Your task to perform on an android device: Go to Reddit.com Image 0: 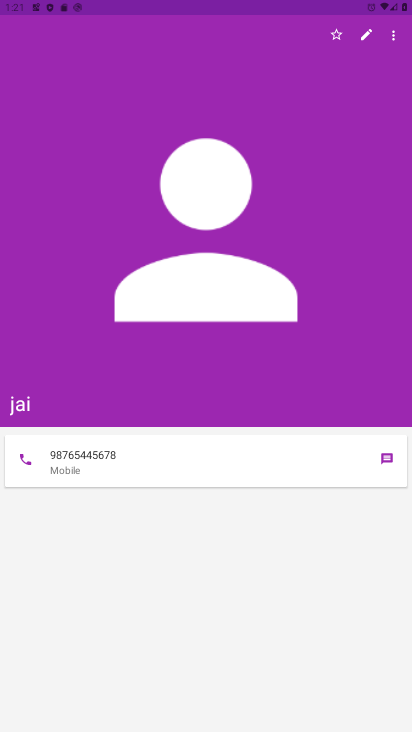
Step 0: press home button
Your task to perform on an android device: Go to Reddit.com Image 1: 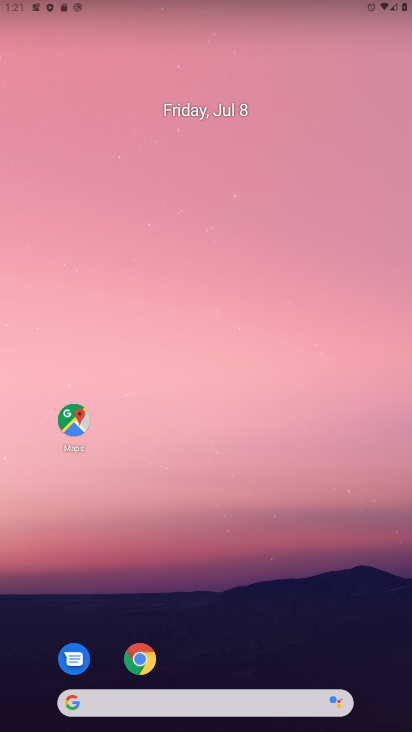
Step 1: click (238, 693)
Your task to perform on an android device: Go to Reddit.com Image 2: 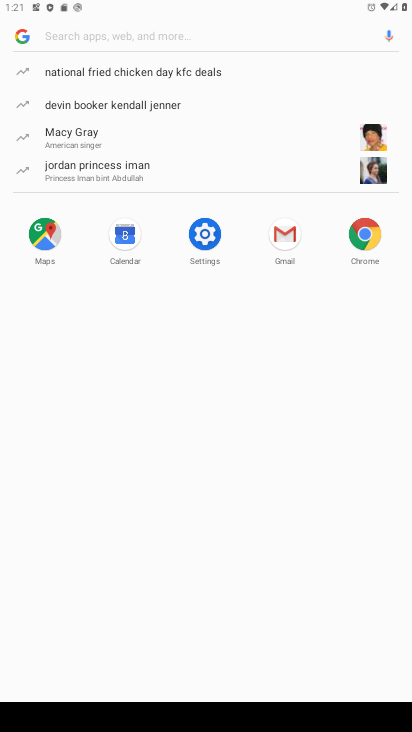
Step 2: type "reddit.com"
Your task to perform on an android device: Go to Reddit.com Image 3: 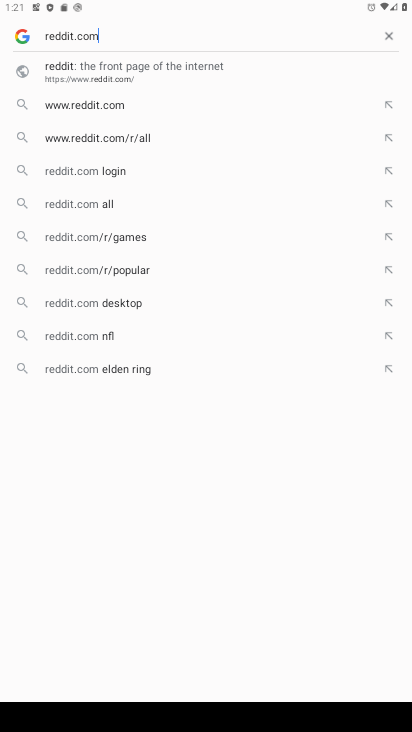
Step 3: click (95, 73)
Your task to perform on an android device: Go to Reddit.com Image 4: 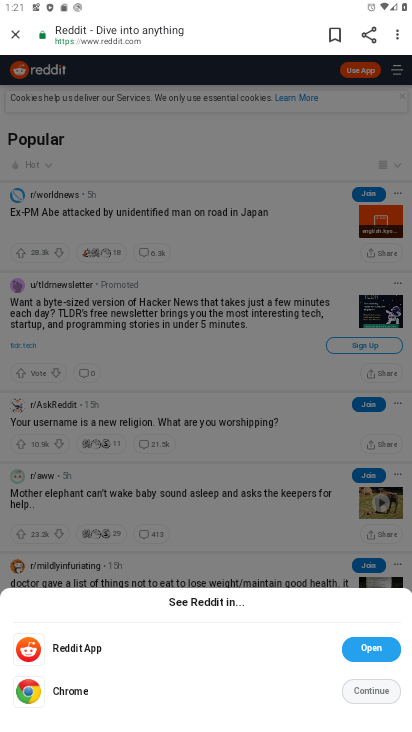
Step 4: task complete